Your task to perform on an android device: uninstall "eBay: The shopping marketplace" Image 0: 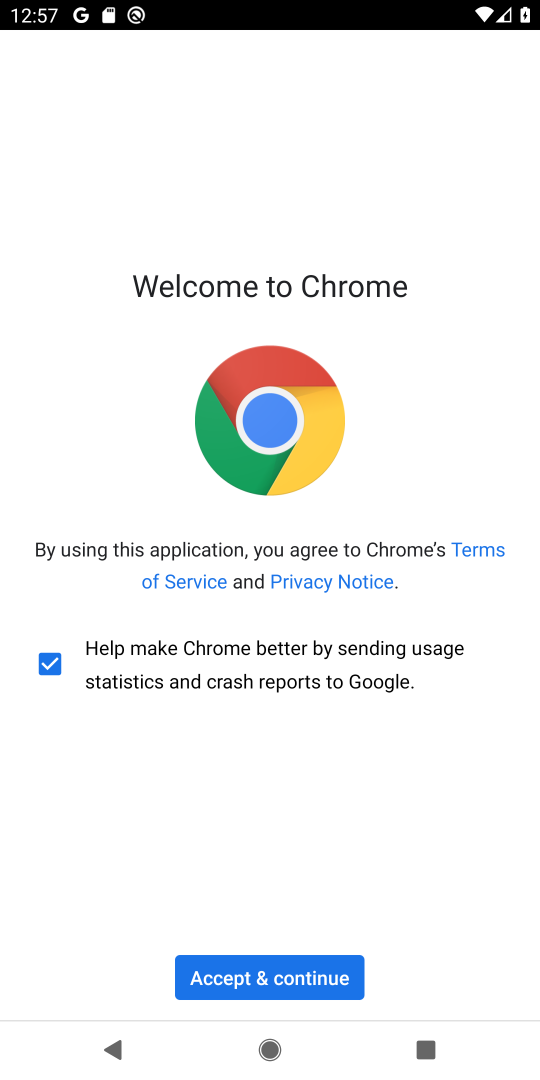
Step 0: press home button
Your task to perform on an android device: uninstall "eBay: The shopping marketplace" Image 1: 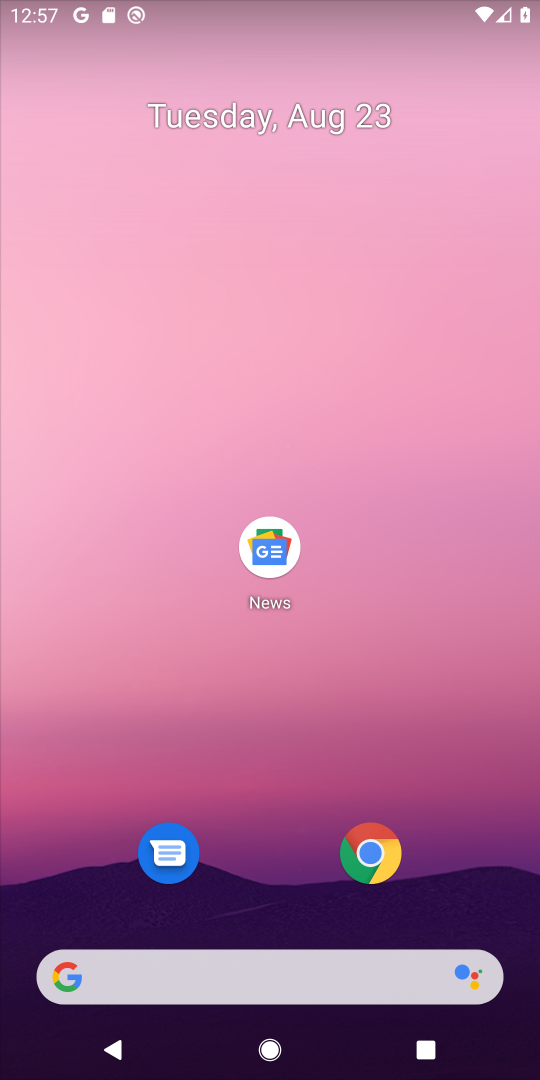
Step 1: drag from (485, 932) to (425, 196)
Your task to perform on an android device: uninstall "eBay: The shopping marketplace" Image 2: 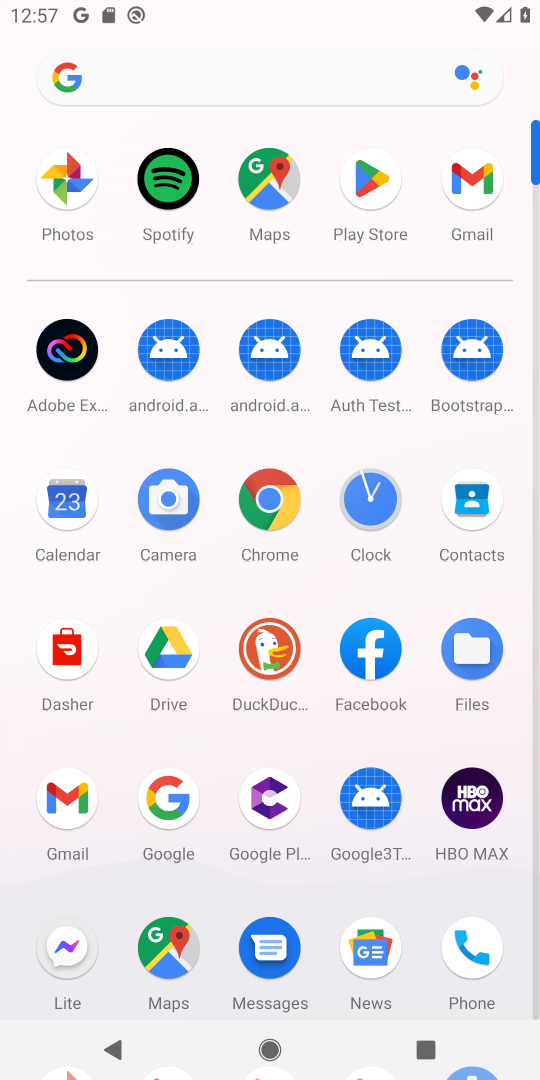
Step 2: drag from (423, 902) to (402, 426)
Your task to perform on an android device: uninstall "eBay: The shopping marketplace" Image 3: 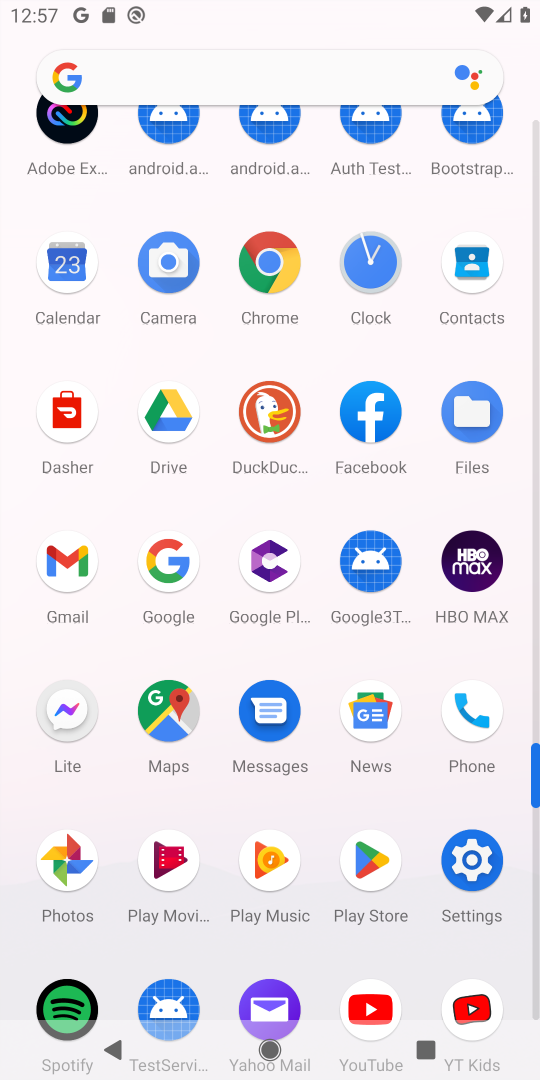
Step 3: click (371, 859)
Your task to perform on an android device: uninstall "eBay: The shopping marketplace" Image 4: 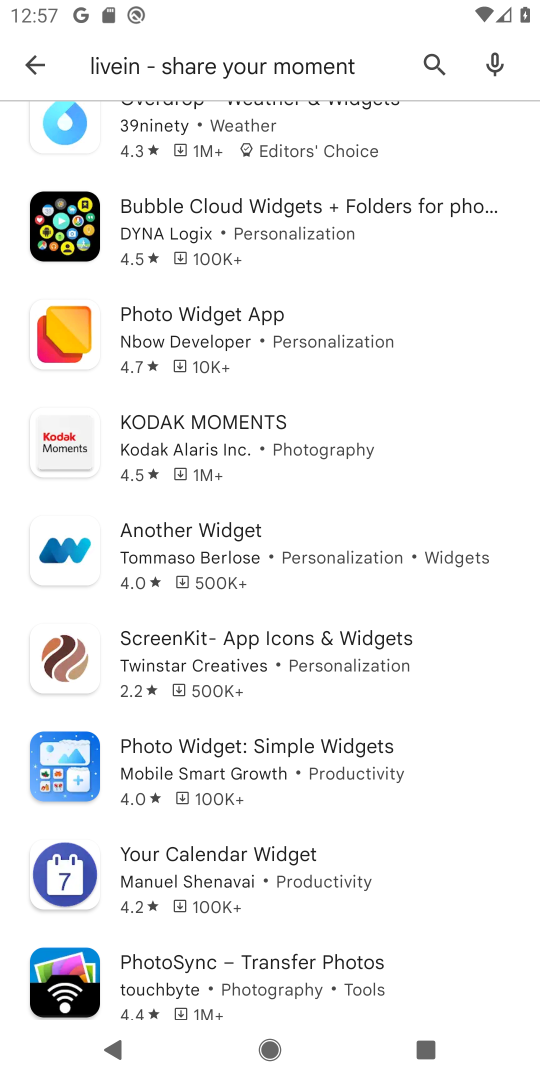
Step 4: click (432, 64)
Your task to perform on an android device: uninstall "eBay: The shopping marketplace" Image 5: 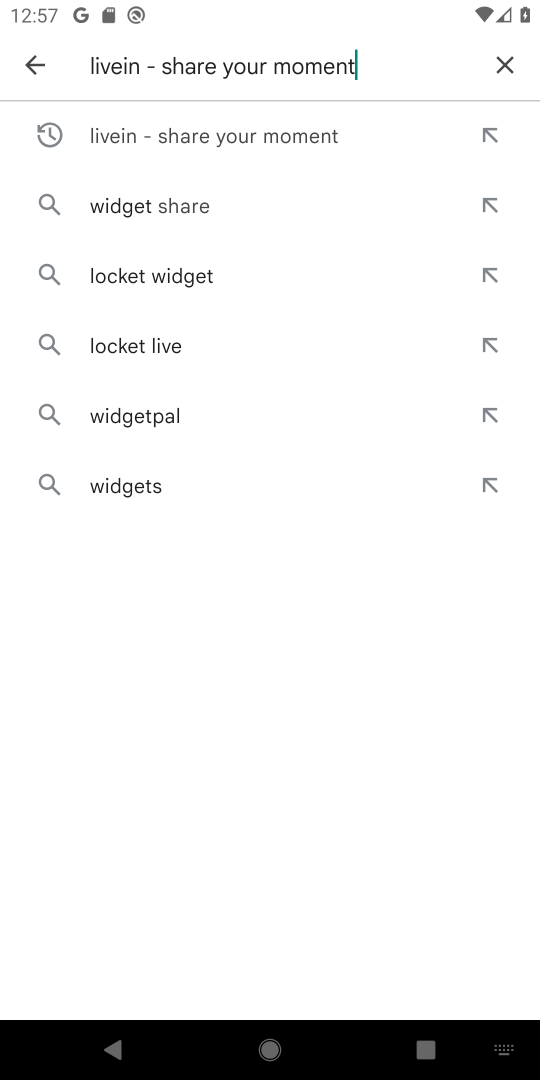
Step 5: click (496, 61)
Your task to perform on an android device: uninstall "eBay: The shopping marketplace" Image 6: 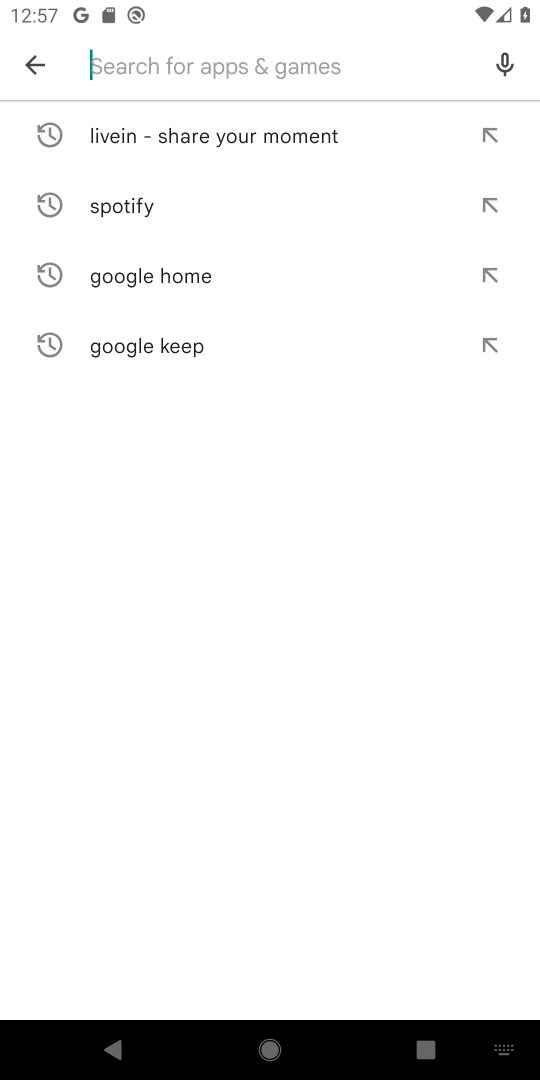
Step 6: type "eBay: The shopping marketplace"
Your task to perform on an android device: uninstall "eBay: The shopping marketplace" Image 7: 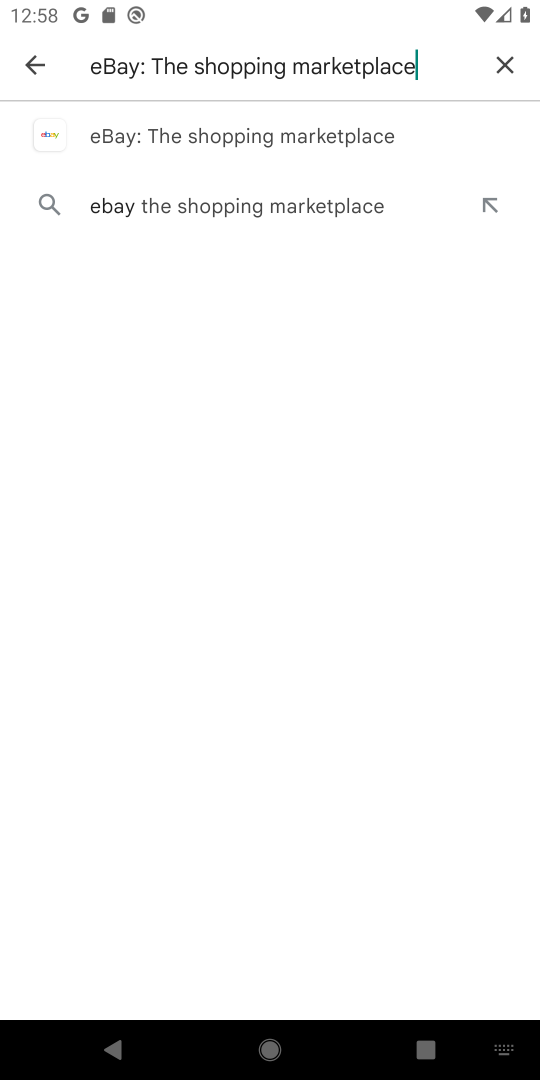
Step 7: click (172, 138)
Your task to perform on an android device: uninstall "eBay: The shopping marketplace" Image 8: 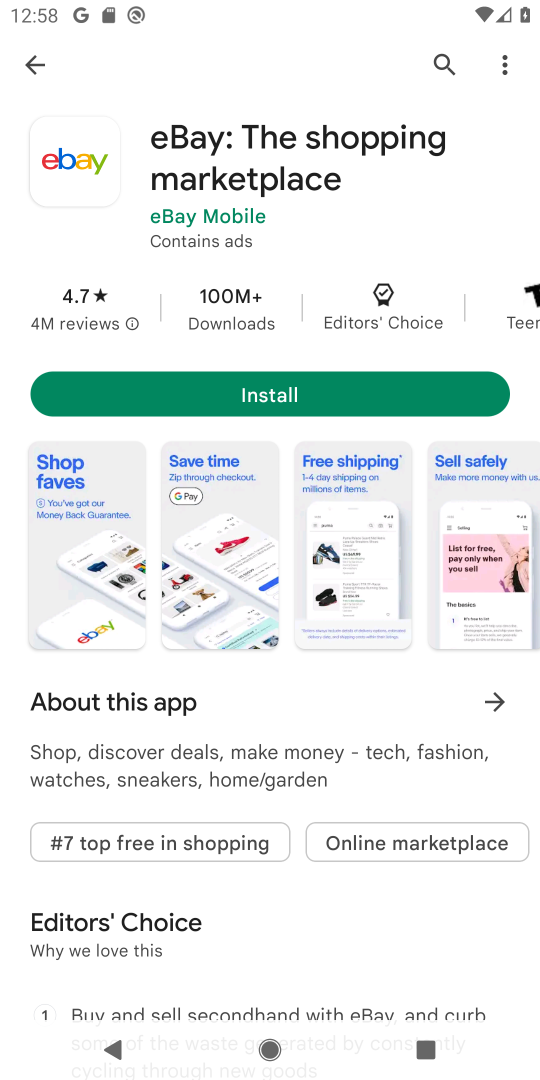
Step 8: task complete